Your task to perform on an android device: Go to privacy settings Image 0: 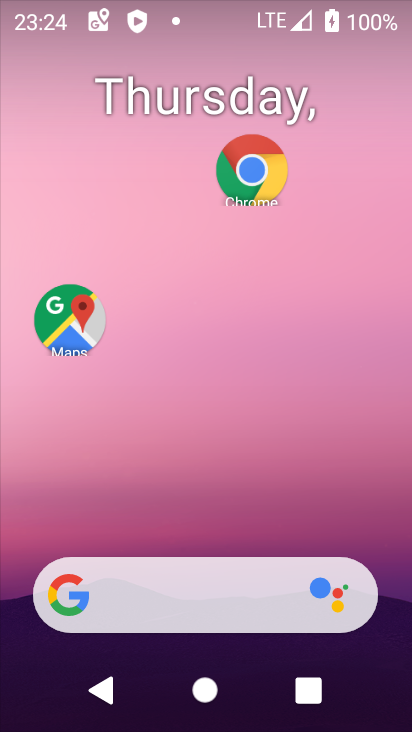
Step 0: drag from (228, 486) to (234, 162)
Your task to perform on an android device: Go to privacy settings Image 1: 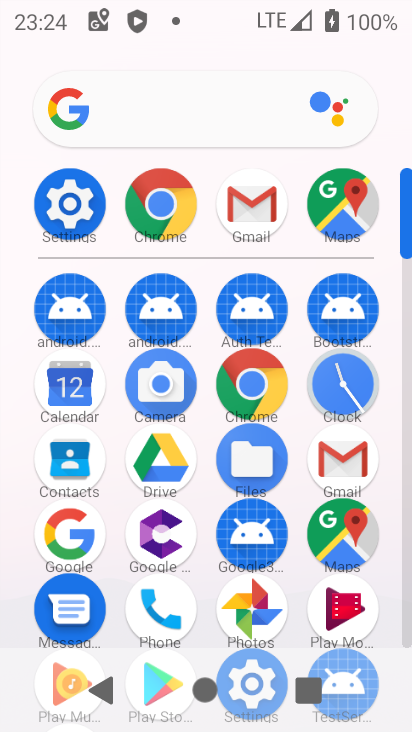
Step 1: click (63, 210)
Your task to perform on an android device: Go to privacy settings Image 2: 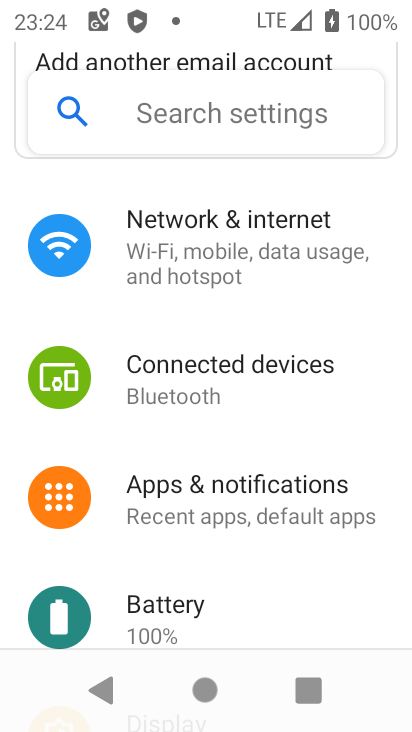
Step 2: drag from (198, 598) to (223, 232)
Your task to perform on an android device: Go to privacy settings Image 3: 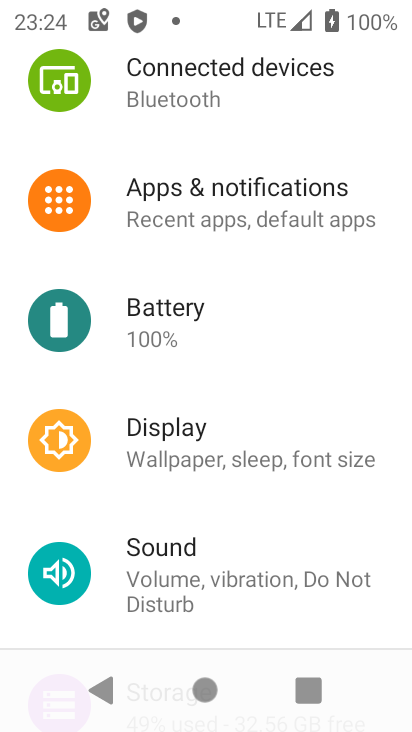
Step 3: drag from (229, 619) to (252, 331)
Your task to perform on an android device: Go to privacy settings Image 4: 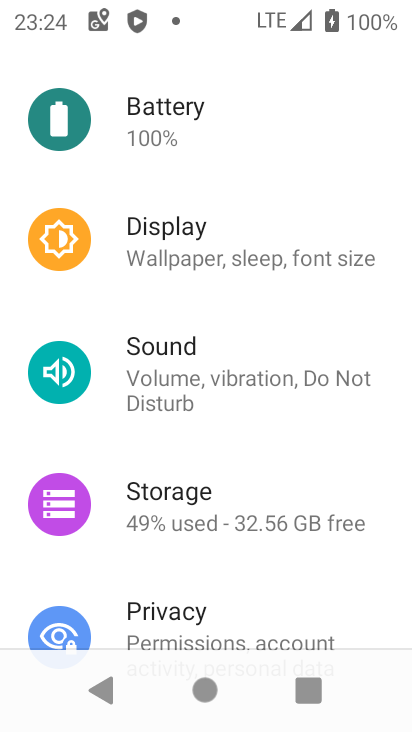
Step 4: drag from (217, 580) to (220, 287)
Your task to perform on an android device: Go to privacy settings Image 5: 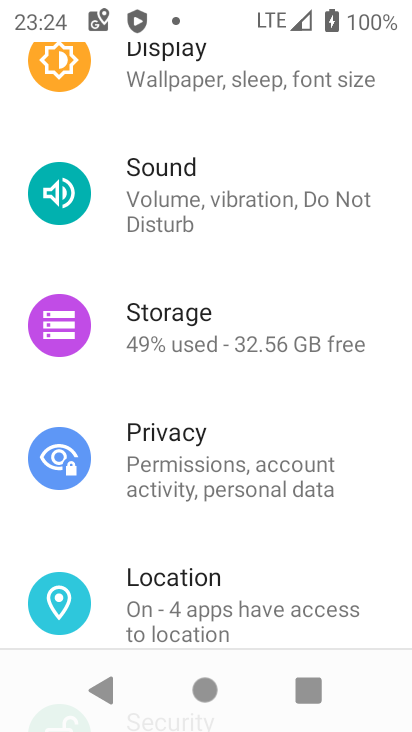
Step 5: click (178, 448)
Your task to perform on an android device: Go to privacy settings Image 6: 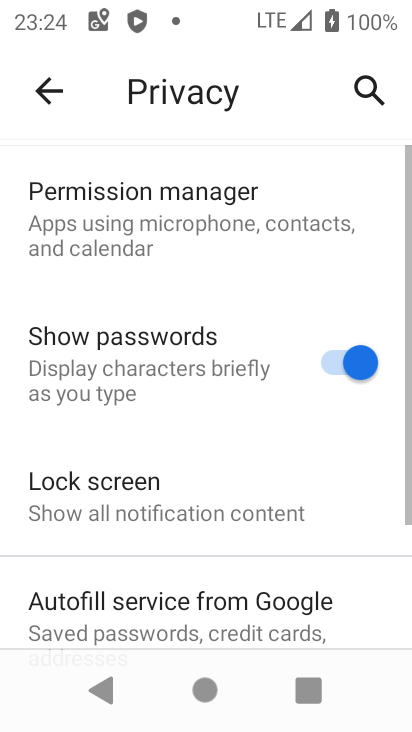
Step 6: drag from (249, 594) to (296, 233)
Your task to perform on an android device: Go to privacy settings Image 7: 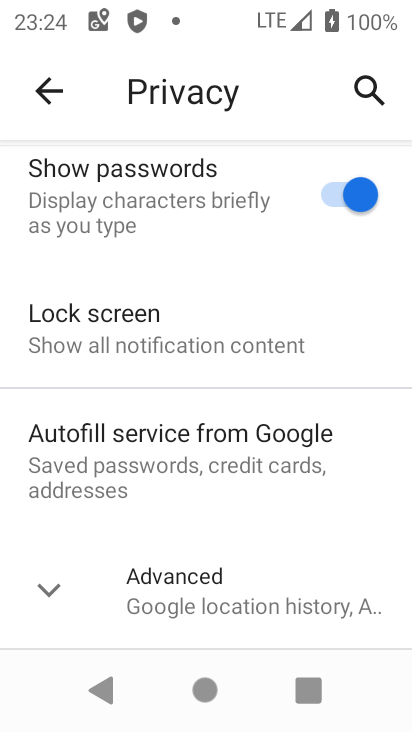
Step 7: click (215, 566)
Your task to perform on an android device: Go to privacy settings Image 8: 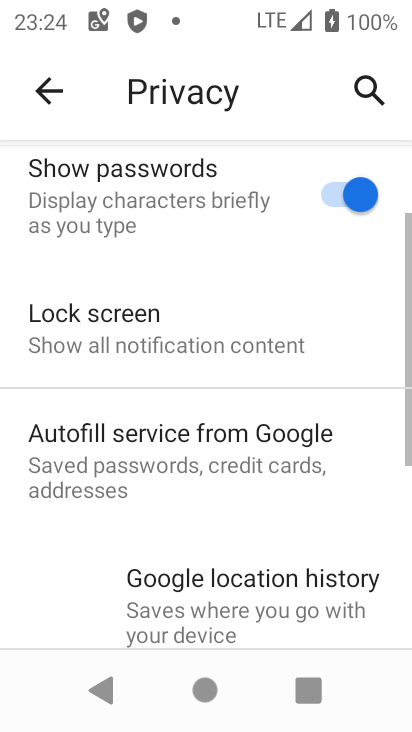
Step 8: task complete